Your task to perform on an android device: turn off sleep mode Image 0: 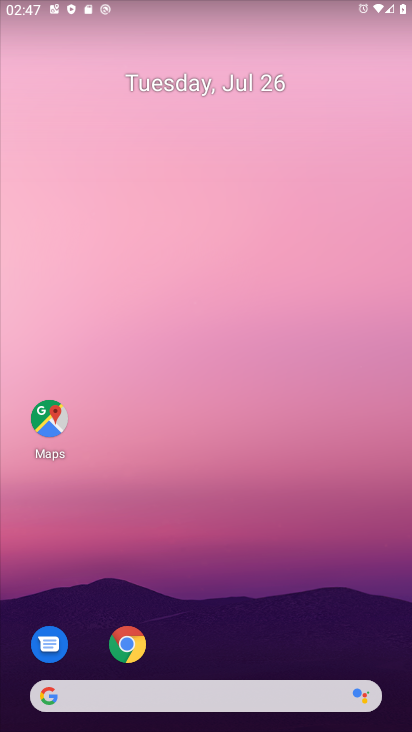
Step 0: drag from (207, 677) to (216, 250)
Your task to perform on an android device: turn off sleep mode Image 1: 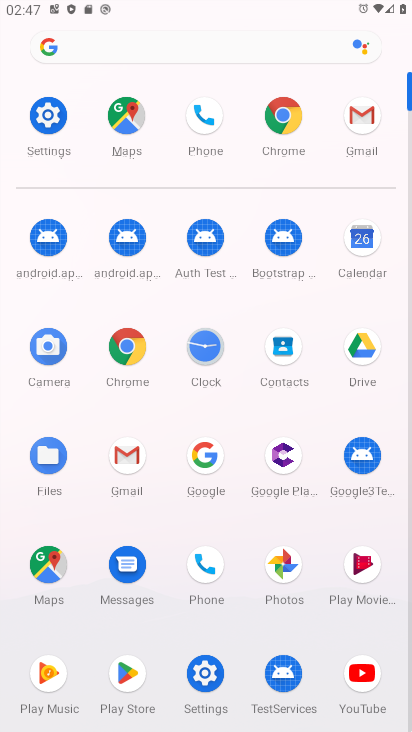
Step 1: click (49, 101)
Your task to perform on an android device: turn off sleep mode Image 2: 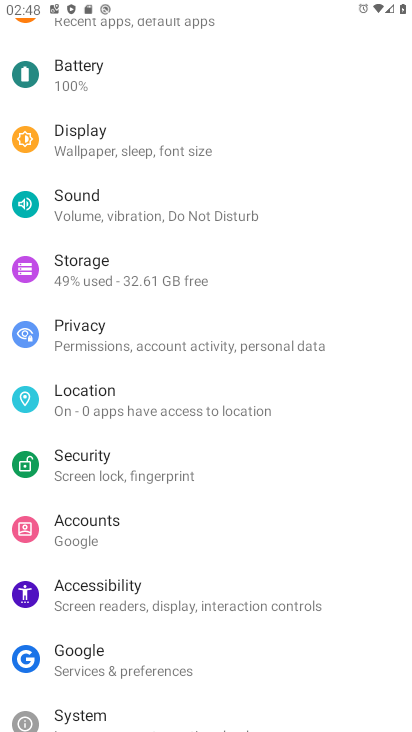
Step 2: task complete